Your task to perform on an android device: Go to Android settings Image 0: 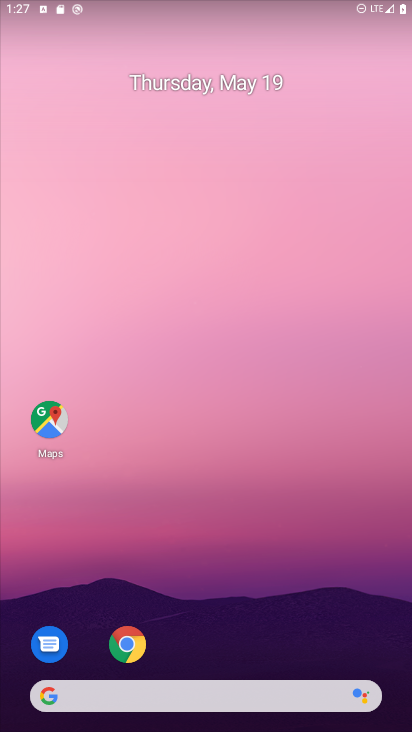
Step 0: drag from (285, 640) to (228, 131)
Your task to perform on an android device: Go to Android settings Image 1: 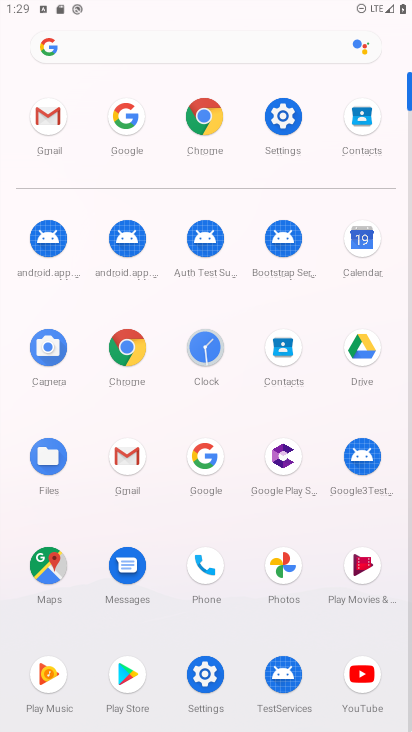
Step 1: click (192, 678)
Your task to perform on an android device: Go to Android settings Image 2: 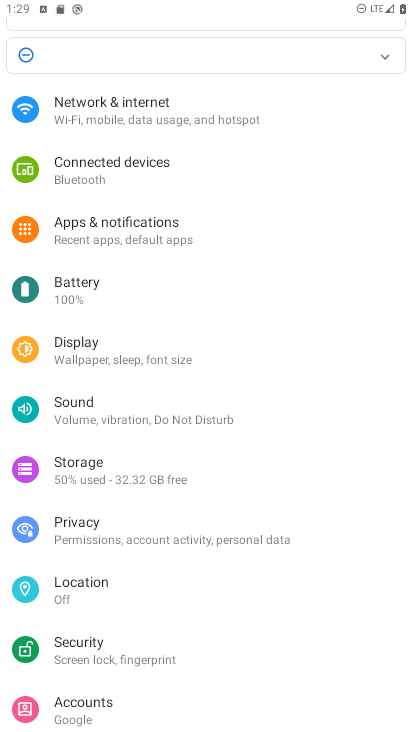
Step 2: drag from (113, 635) to (150, 70)
Your task to perform on an android device: Go to Android settings Image 3: 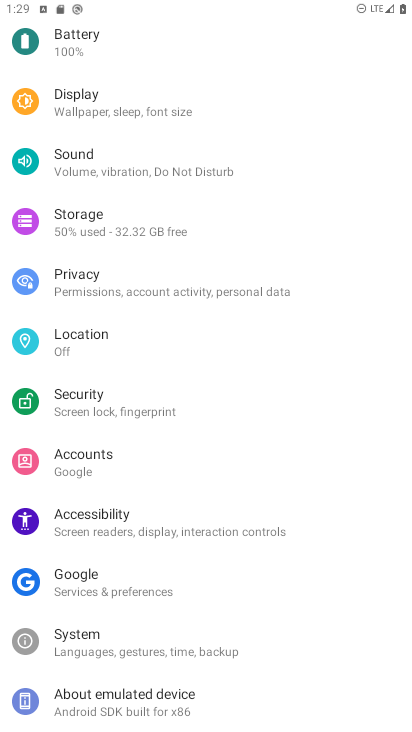
Step 3: click (143, 686)
Your task to perform on an android device: Go to Android settings Image 4: 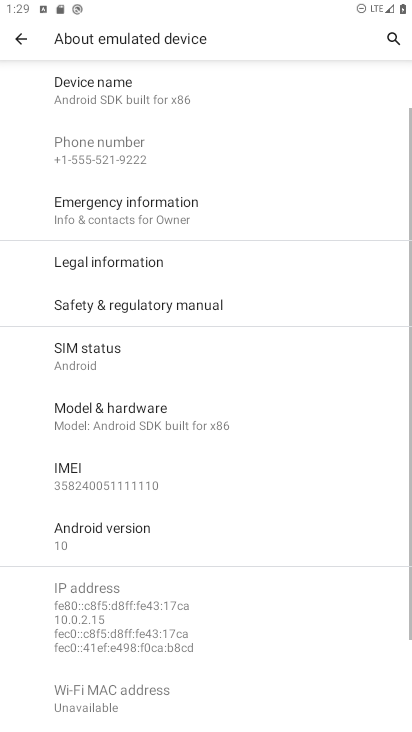
Step 4: click (95, 563)
Your task to perform on an android device: Go to Android settings Image 5: 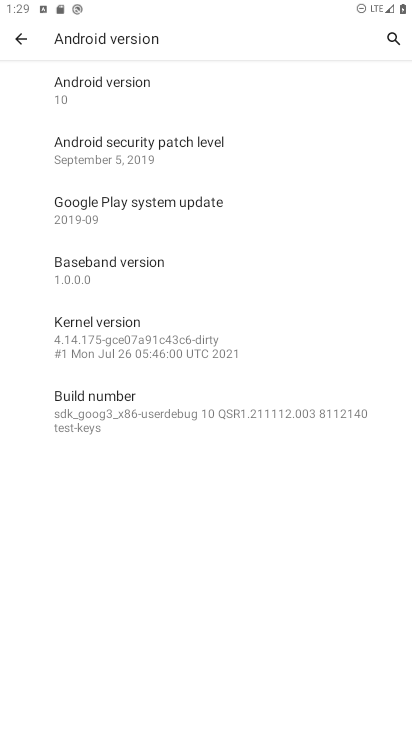
Step 5: task complete